Your task to perform on an android device: see sites visited before in the chrome app Image 0: 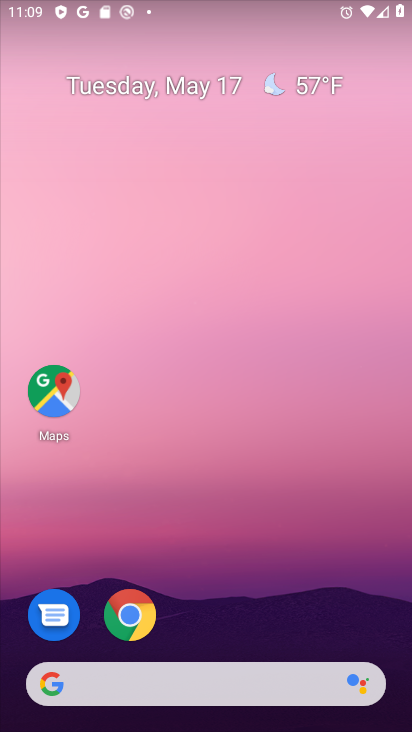
Step 0: click (124, 619)
Your task to perform on an android device: see sites visited before in the chrome app Image 1: 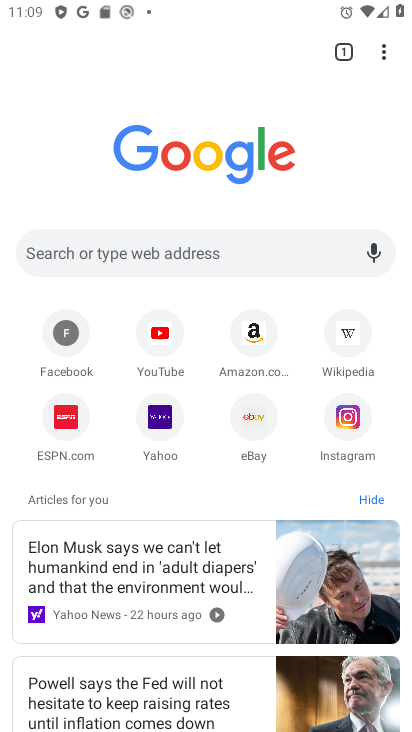
Step 1: task complete